Your task to perform on an android device: install app "Move to iOS" Image 0: 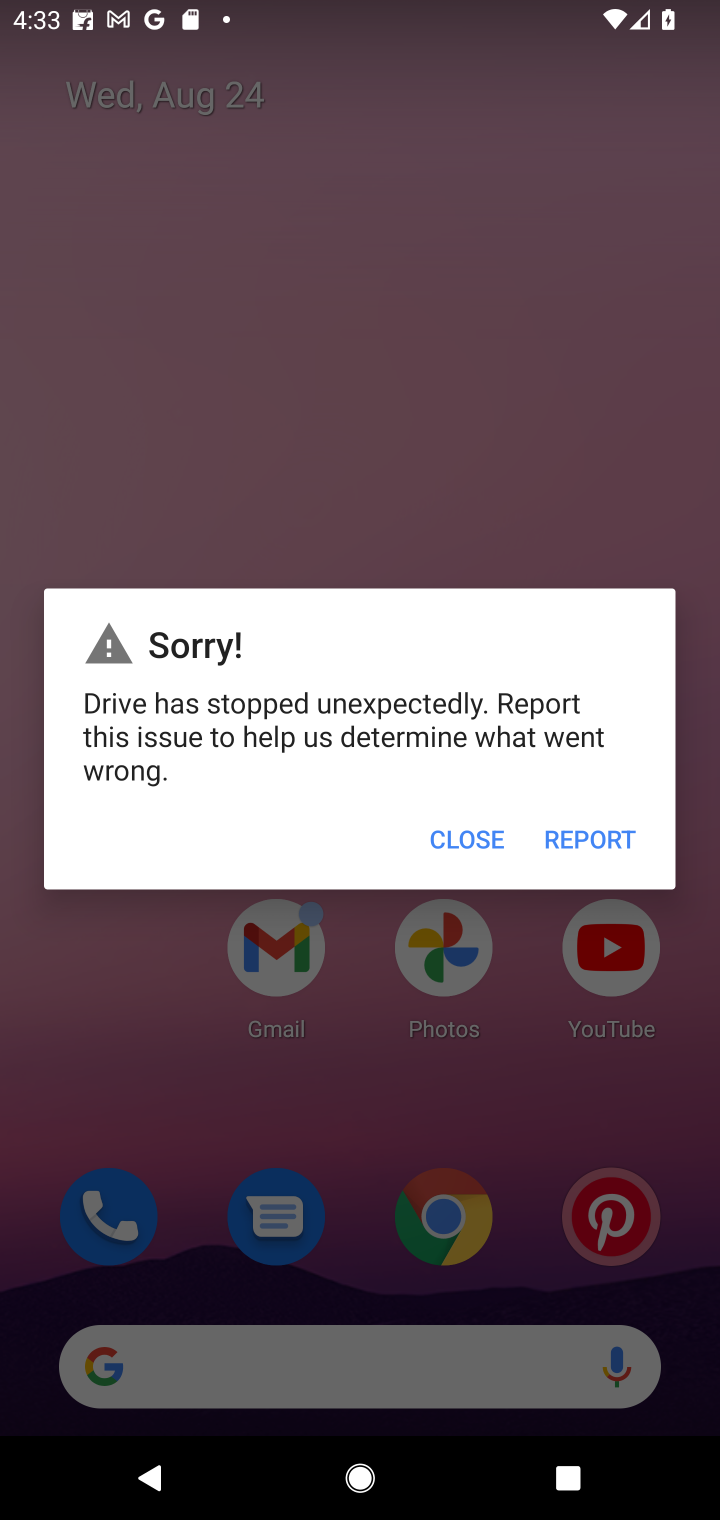
Step 0: click (477, 823)
Your task to perform on an android device: install app "Move to iOS" Image 1: 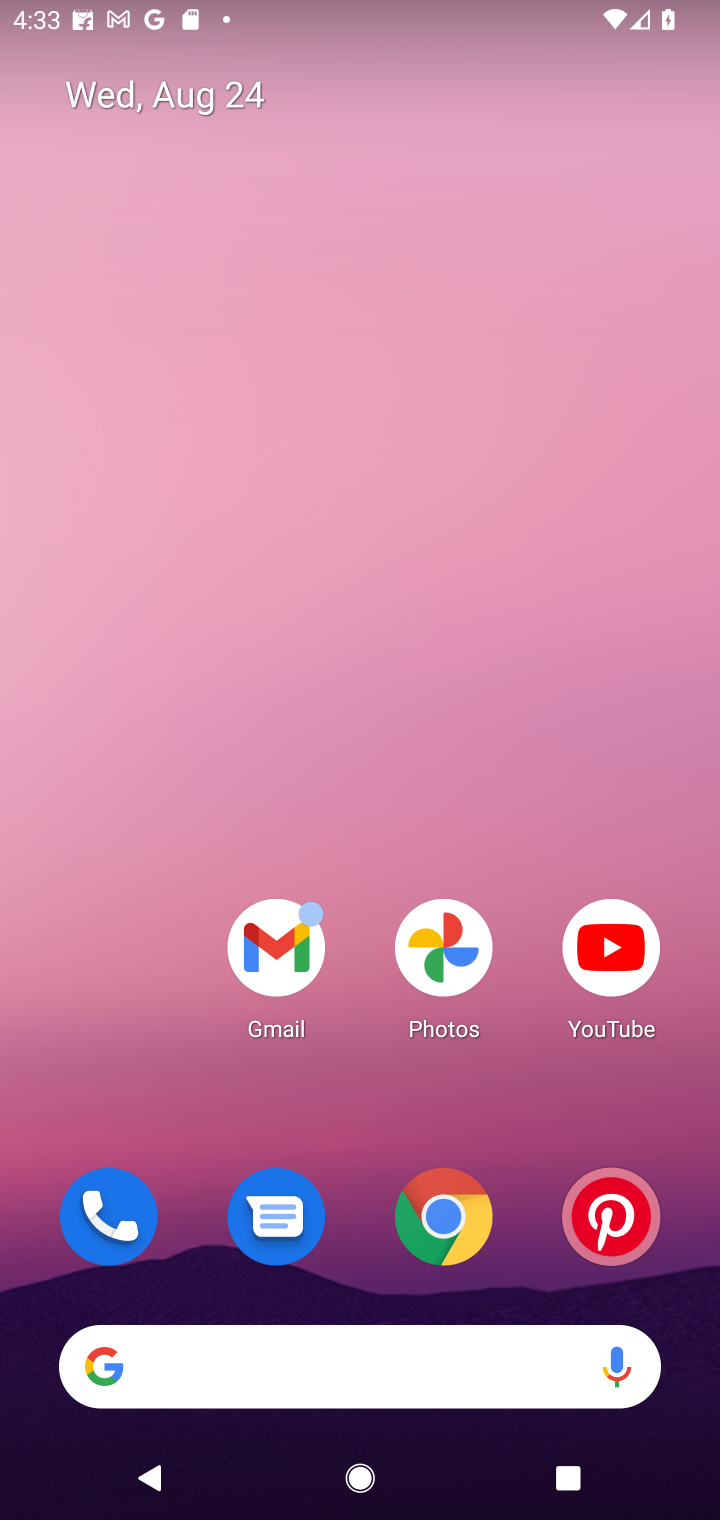
Step 1: drag from (325, 1116) to (351, 68)
Your task to perform on an android device: install app "Move to iOS" Image 2: 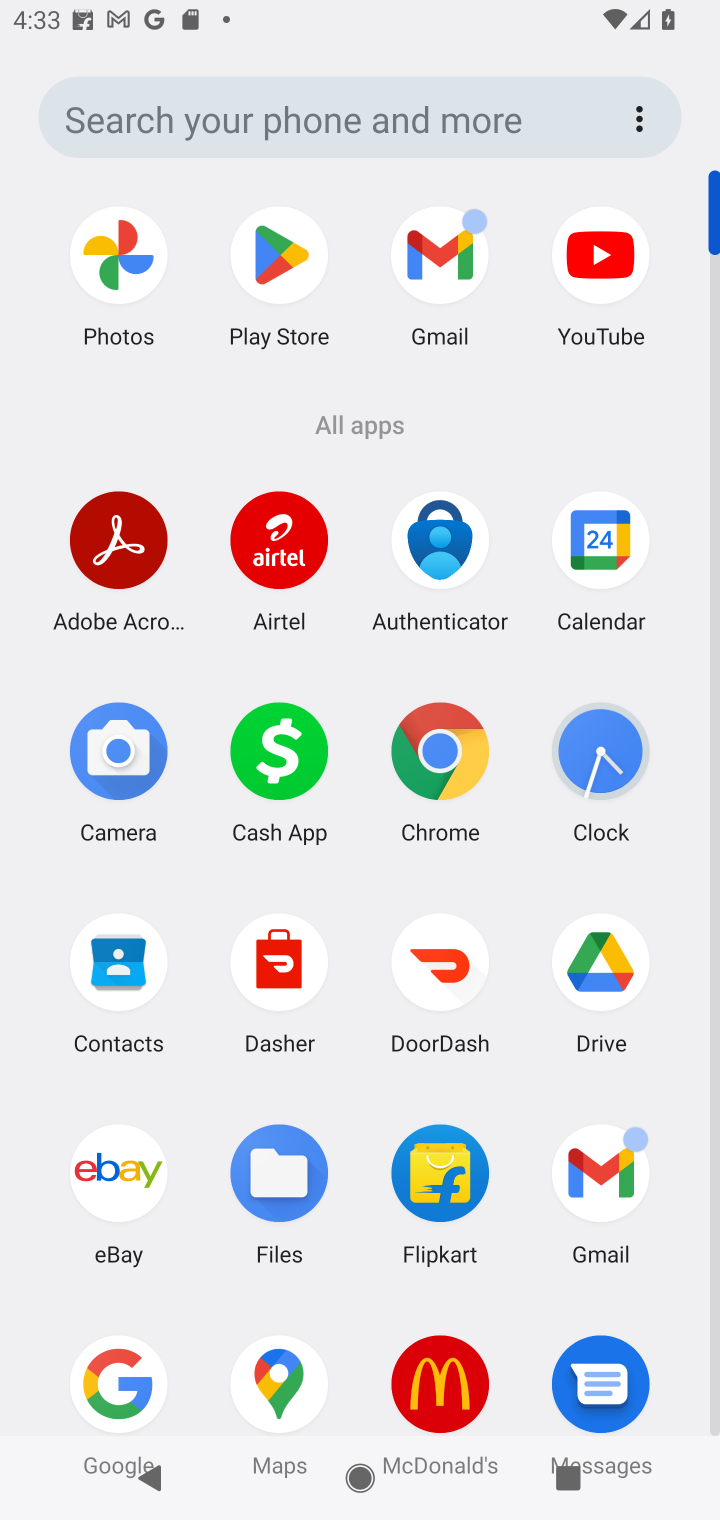
Step 2: click (300, 254)
Your task to perform on an android device: install app "Move to iOS" Image 3: 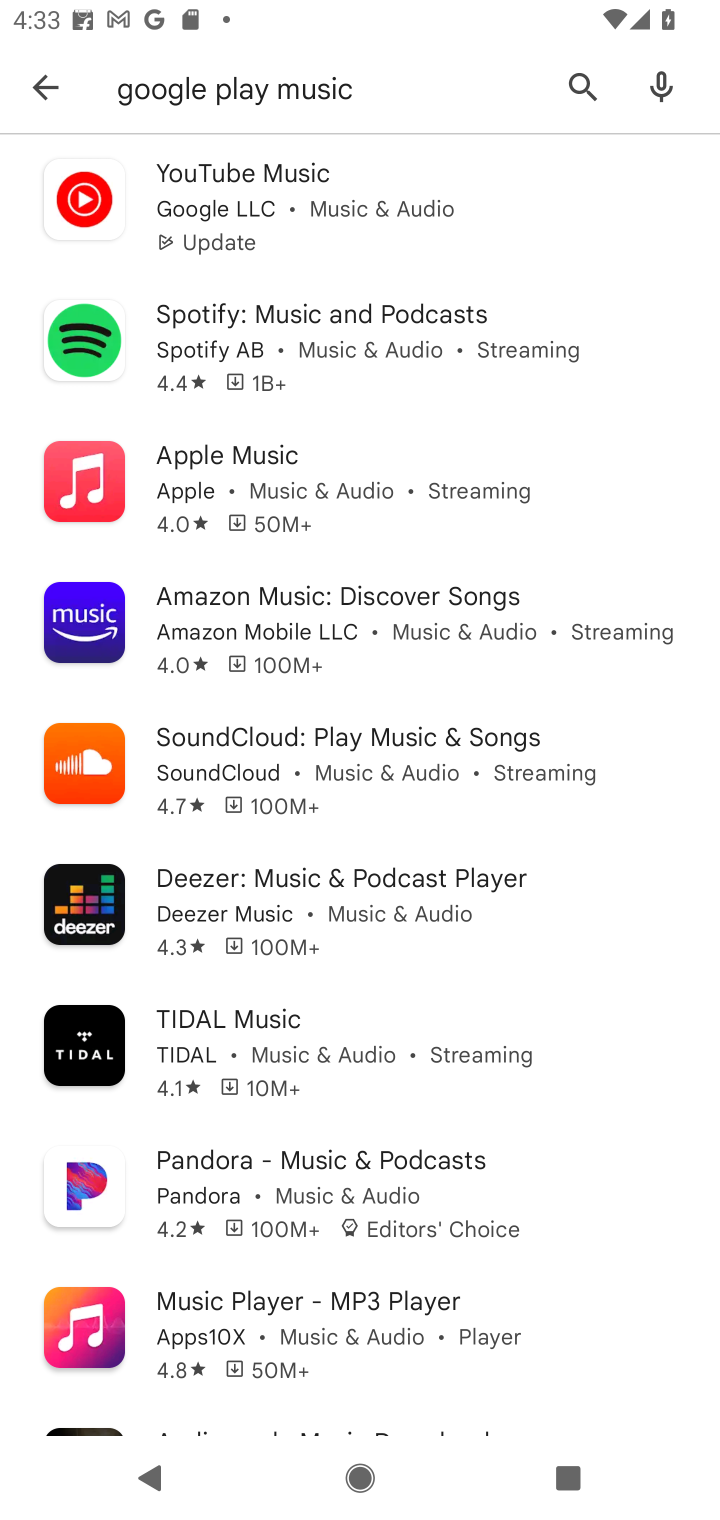
Step 3: click (592, 68)
Your task to perform on an android device: install app "Move to iOS" Image 4: 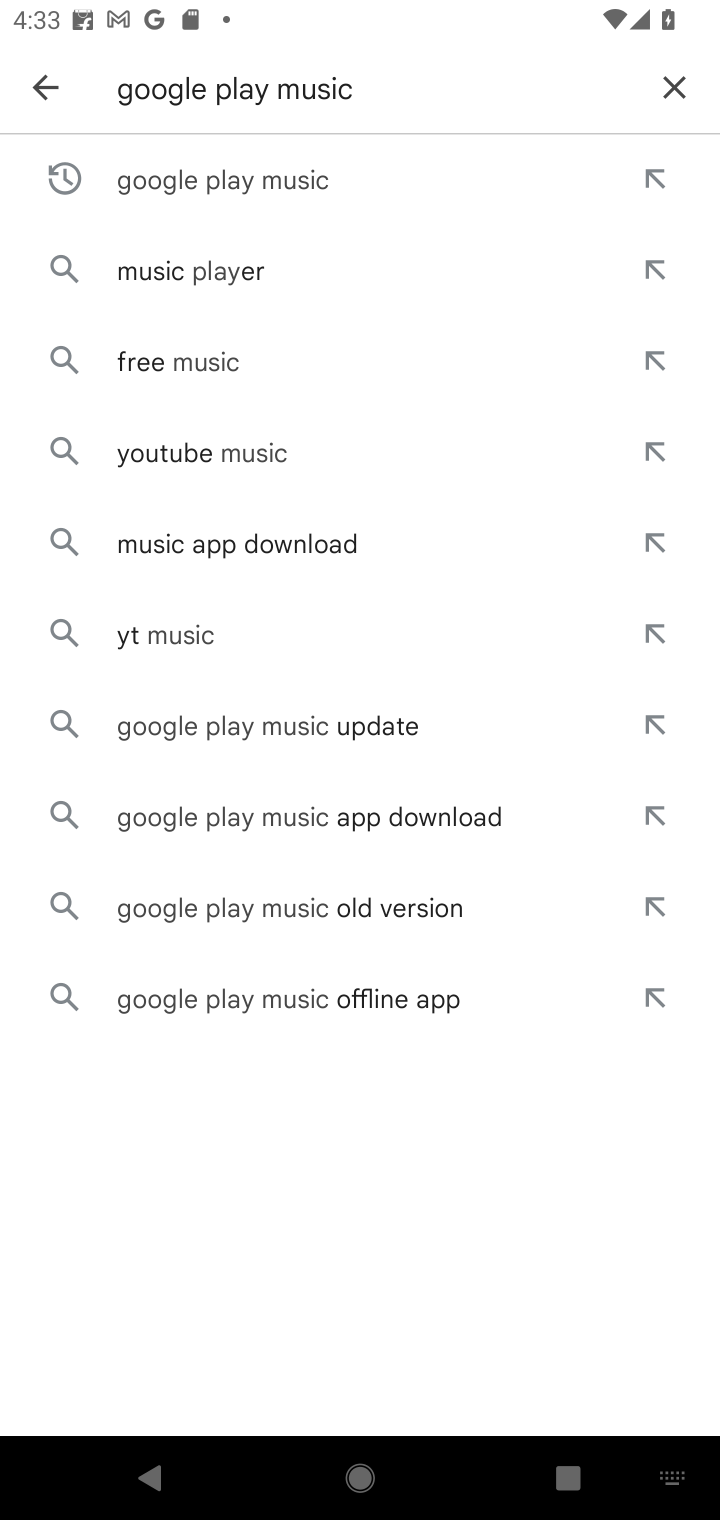
Step 4: click (660, 95)
Your task to perform on an android device: install app "Move to iOS" Image 5: 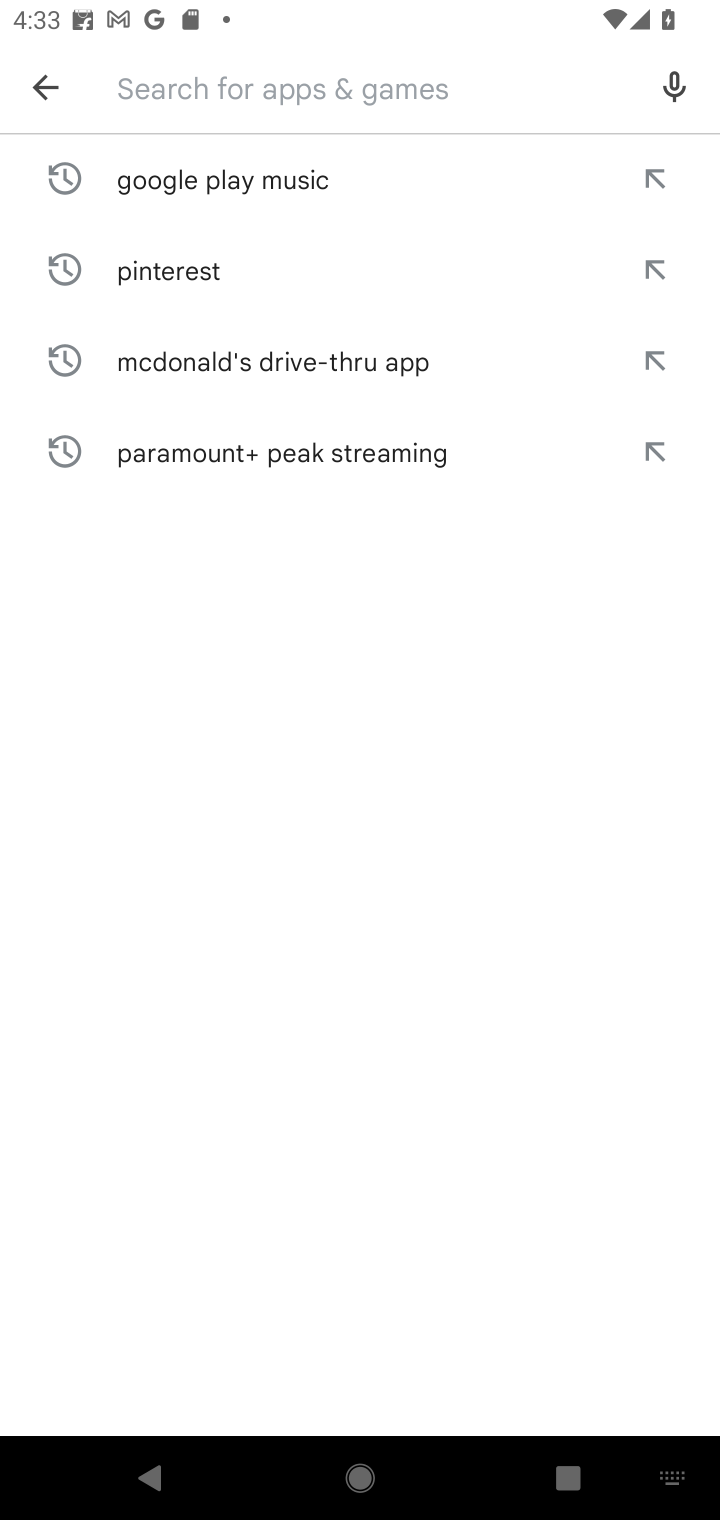
Step 5: type "Move to iOS"
Your task to perform on an android device: install app "Move to iOS" Image 6: 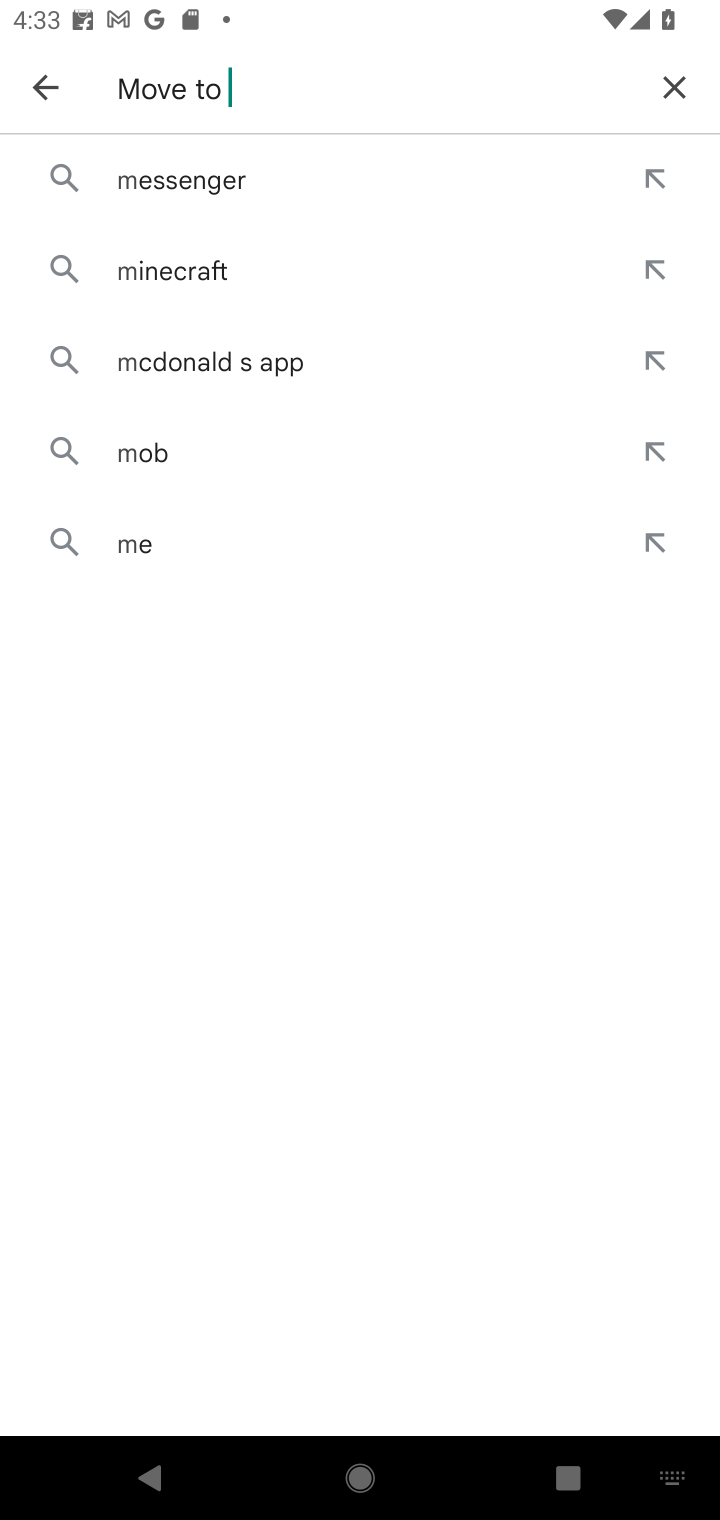
Step 6: type ""
Your task to perform on an android device: install app "Move to iOS" Image 7: 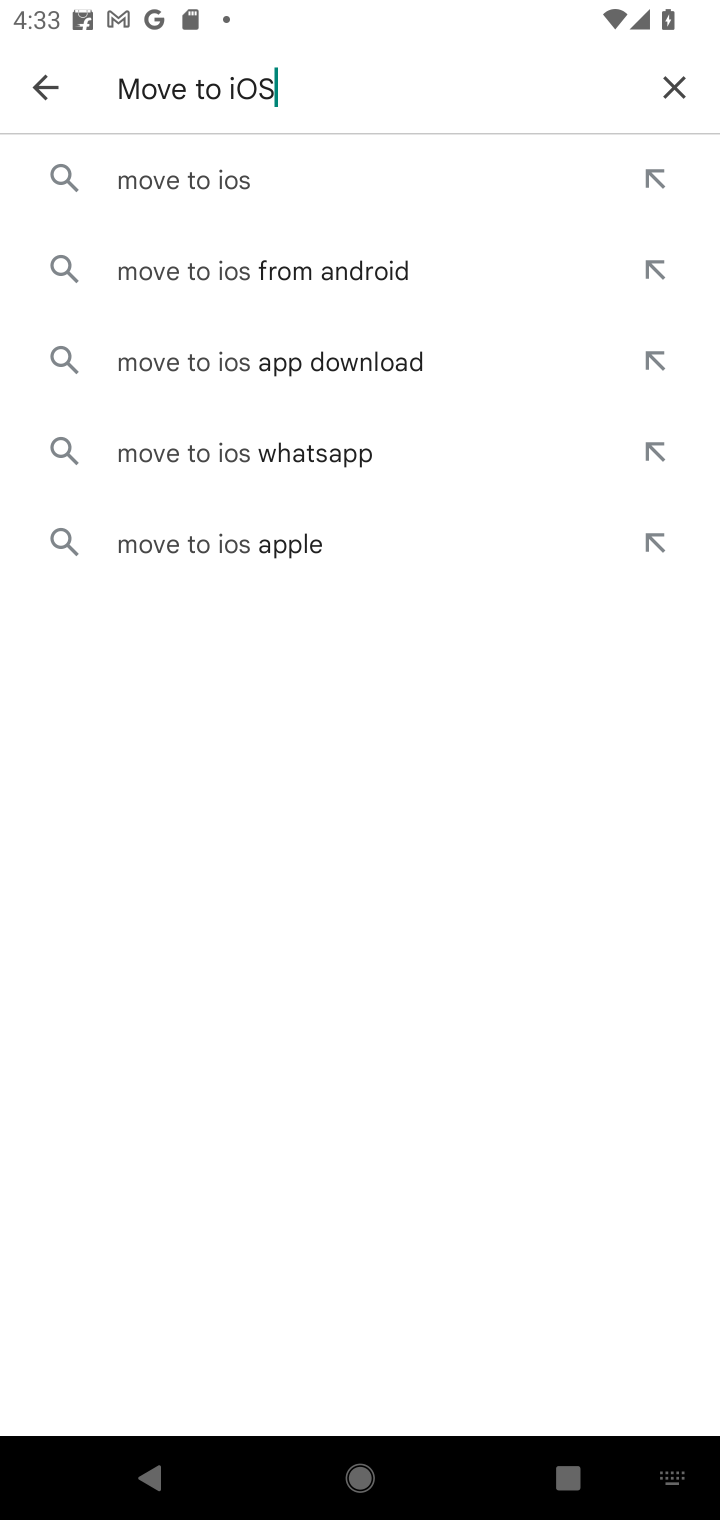
Step 7: click (244, 153)
Your task to perform on an android device: install app "Move to iOS" Image 8: 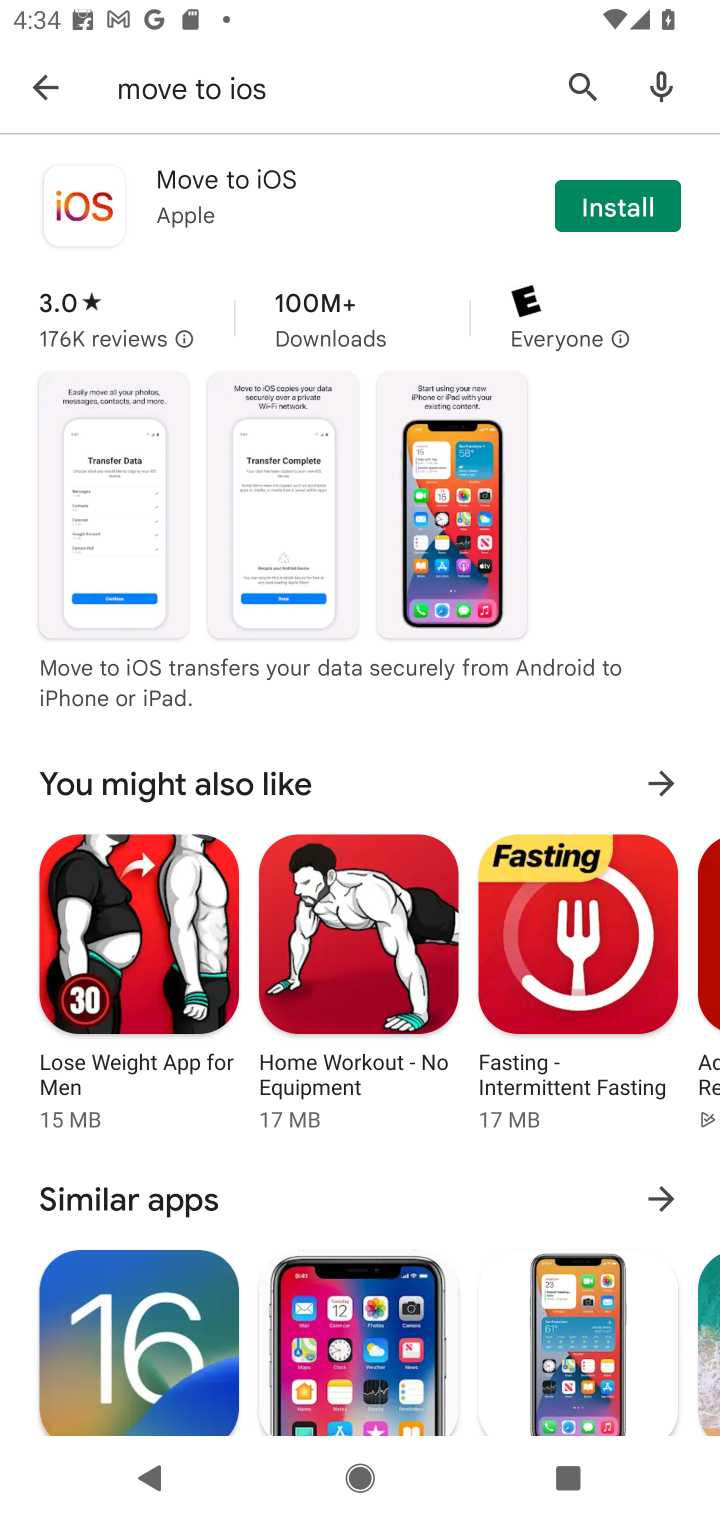
Step 8: click (612, 213)
Your task to perform on an android device: install app "Move to iOS" Image 9: 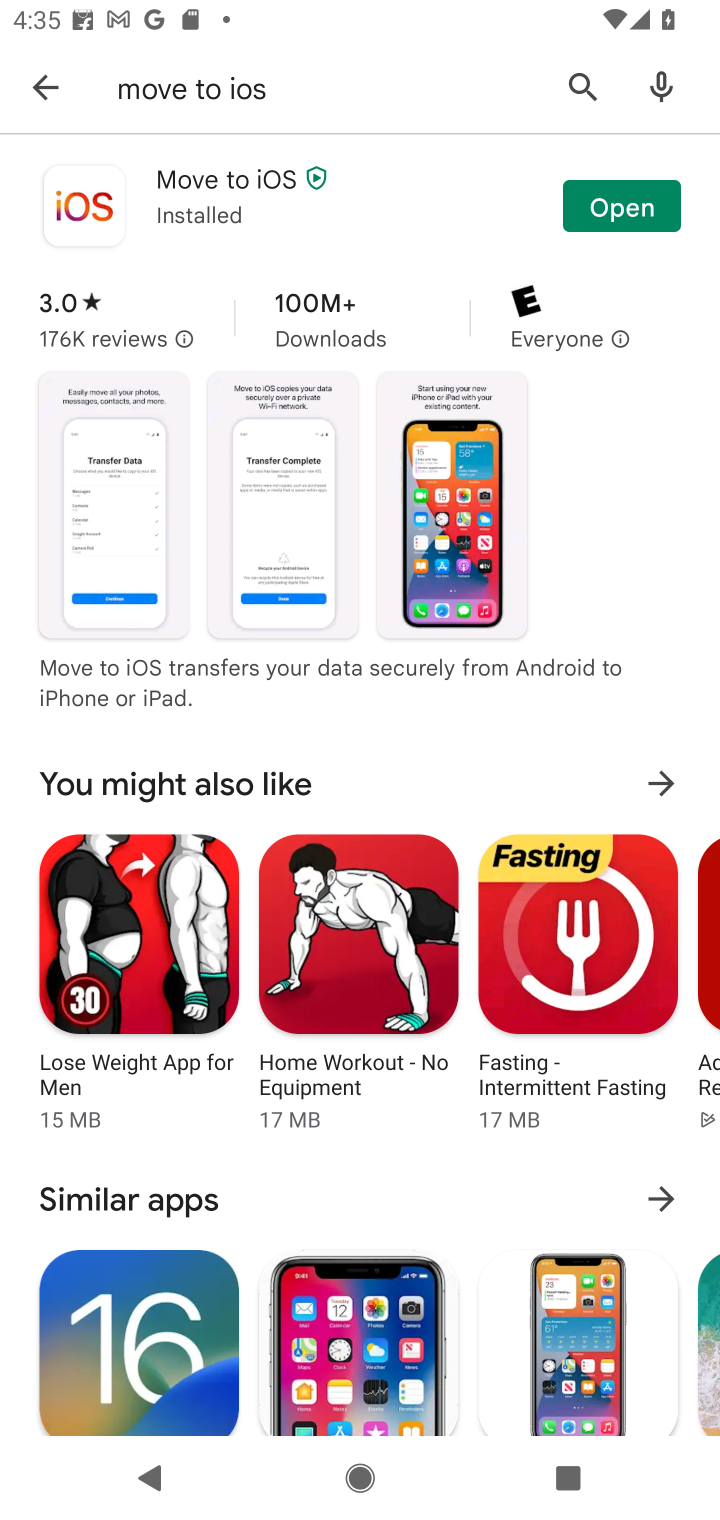
Step 9: task complete